Your task to perform on an android device: Open calendar and show me the fourth week of next month Image 0: 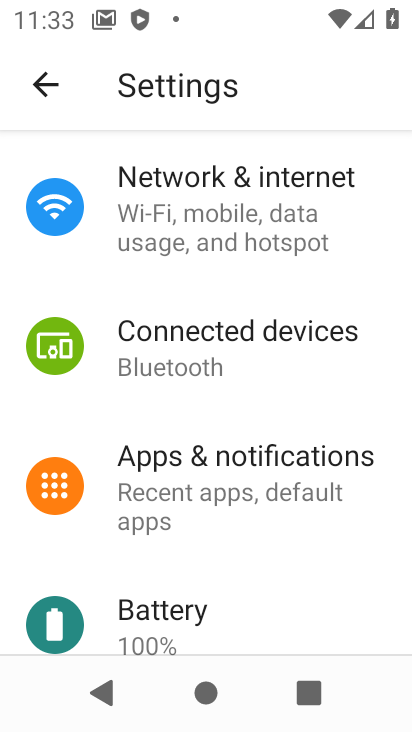
Step 0: press home button
Your task to perform on an android device: Open calendar and show me the fourth week of next month Image 1: 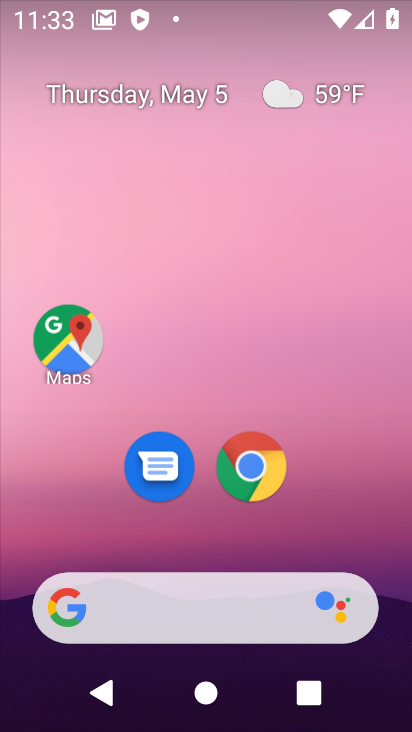
Step 1: drag from (208, 425) to (249, 167)
Your task to perform on an android device: Open calendar and show me the fourth week of next month Image 2: 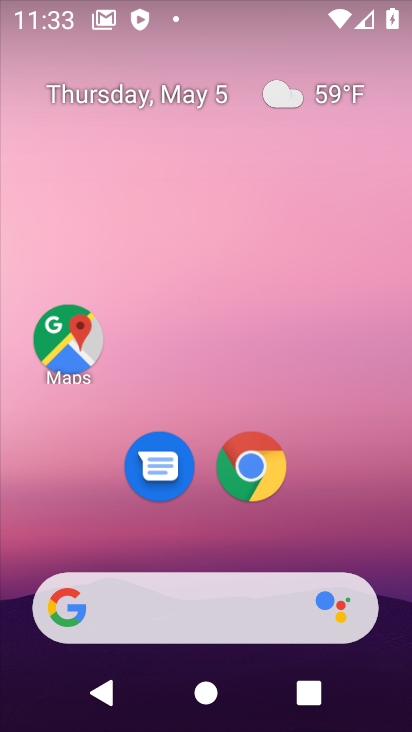
Step 2: drag from (220, 557) to (305, 64)
Your task to perform on an android device: Open calendar and show me the fourth week of next month Image 3: 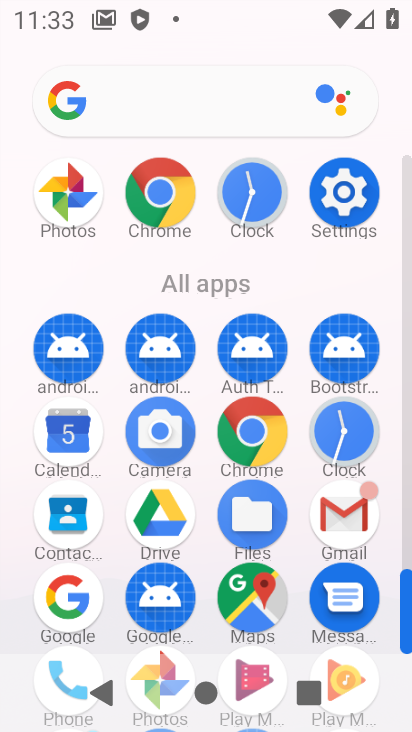
Step 3: click (77, 438)
Your task to perform on an android device: Open calendar and show me the fourth week of next month Image 4: 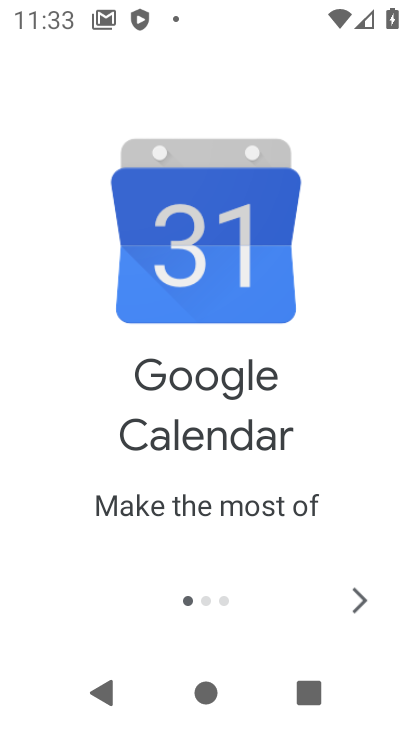
Step 4: click (360, 589)
Your task to perform on an android device: Open calendar and show me the fourth week of next month Image 5: 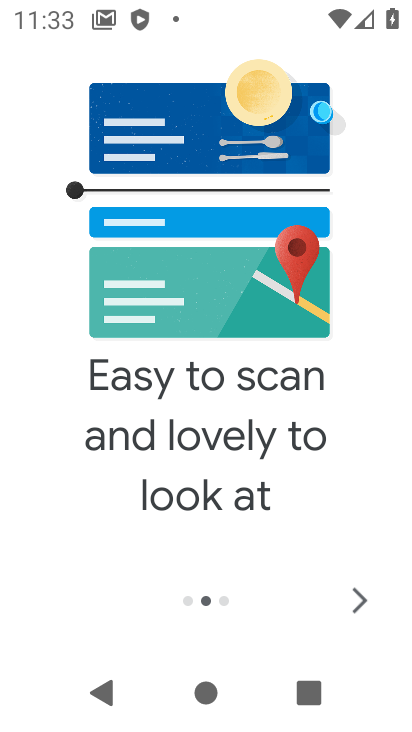
Step 5: click (363, 600)
Your task to perform on an android device: Open calendar and show me the fourth week of next month Image 6: 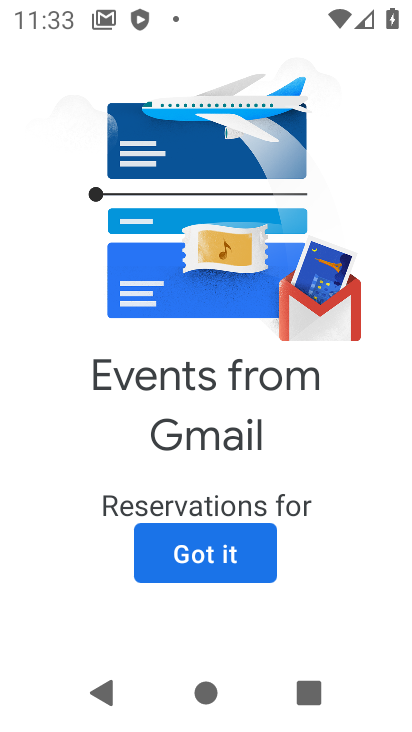
Step 6: click (204, 546)
Your task to perform on an android device: Open calendar and show me the fourth week of next month Image 7: 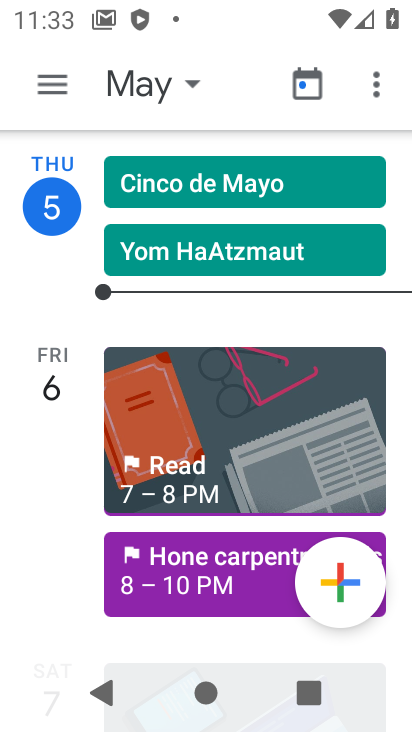
Step 7: click (175, 90)
Your task to perform on an android device: Open calendar and show me the fourth week of next month Image 8: 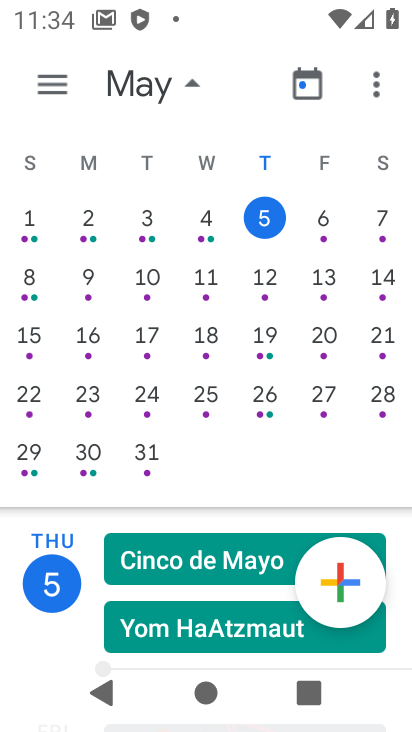
Step 8: drag from (395, 319) to (70, 299)
Your task to perform on an android device: Open calendar and show me the fourth week of next month Image 9: 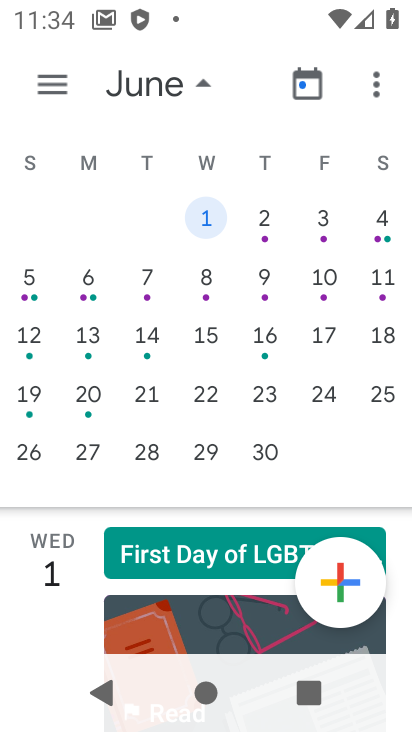
Step 9: click (260, 386)
Your task to perform on an android device: Open calendar and show me the fourth week of next month Image 10: 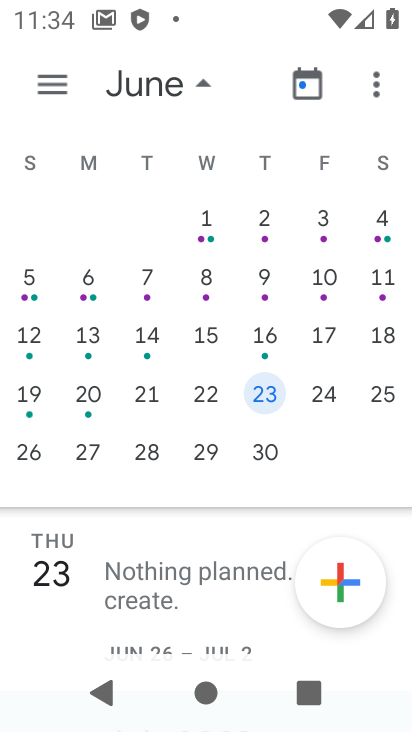
Step 10: click (195, 396)
Your task to perform on an android device: Open calendar and show me the fourth week of next month Image 11: 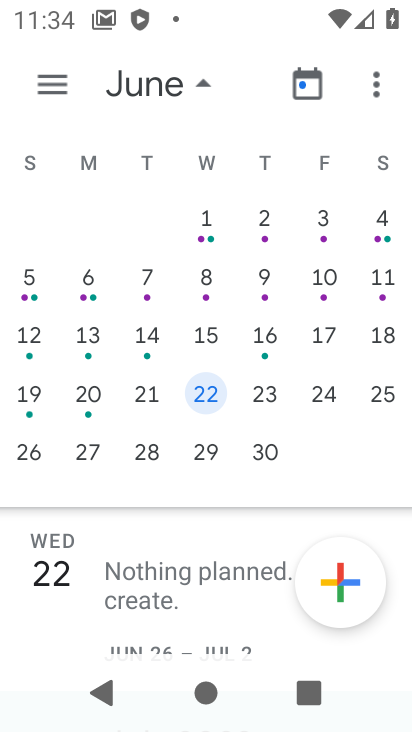
Step 11: click (52, 87)
Your task to perform on an android device: Open calendar and show me the fourth week of next month Image 12: 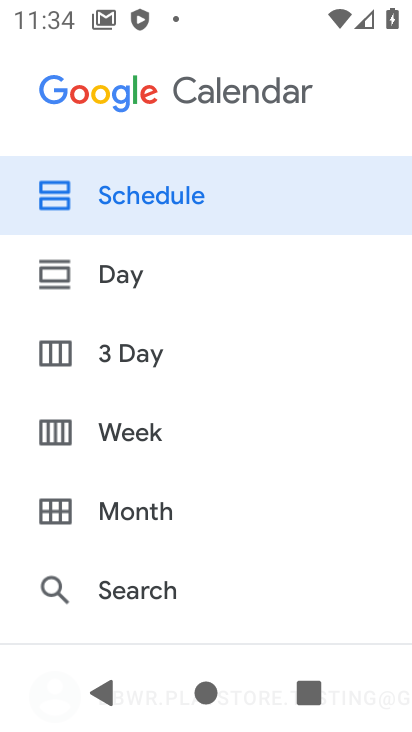
Step 12: click (157, 438)
Your task to perform on an android device: Open calendar and show me the fourth week of next month Image 13: 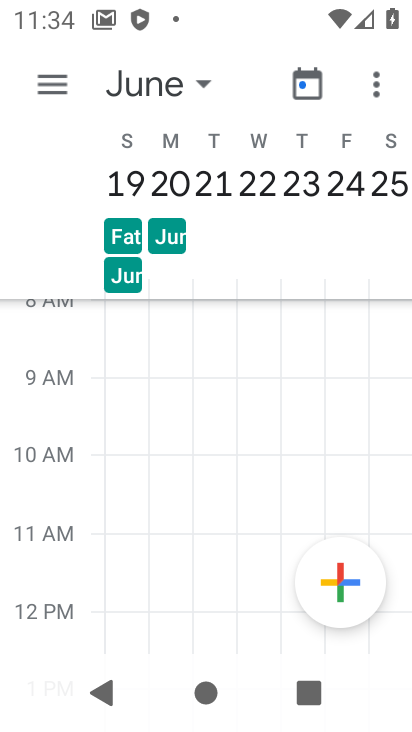
Step 13: task complete